Your task to perform on an android device: delete a single message in the gmail app Image 0: 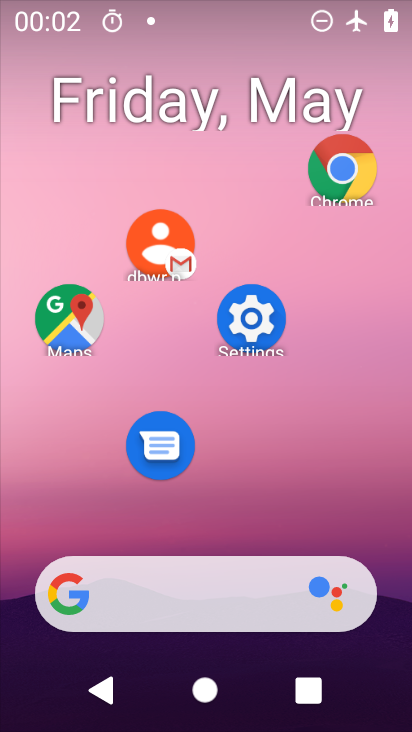
Step 0: drag from (234, 522) to (276, 258)
Your task to perform on an android device: delete a single message in the gmail app Image 1: 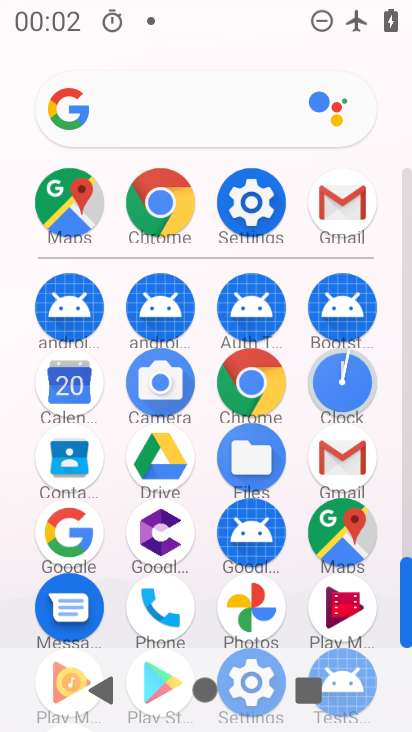
Step 1: click (354, 459)
Your task to perform on an android device: delete a single message in the gmail app Image 2: 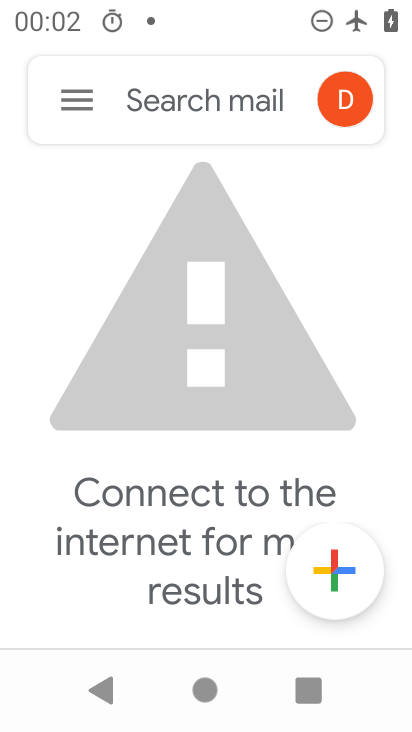
Step 2: task complete